Your task to perform on an android device: What's the weather going to be tomorrow? Image 0: 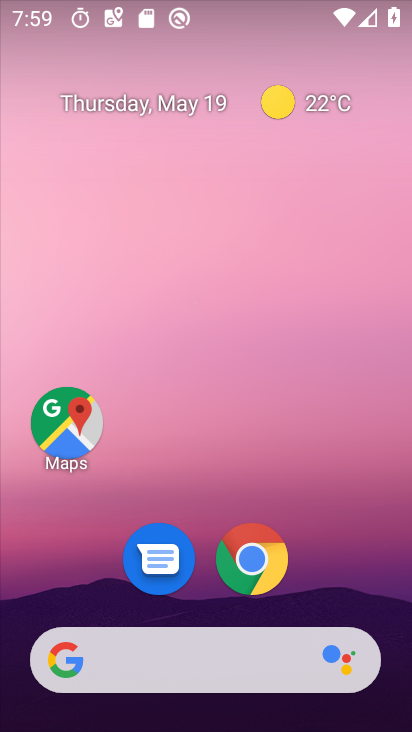
Step 0: click (183, 650)
Your task to perform on an android device: What's the weather going to be tomorrow? Image 1: 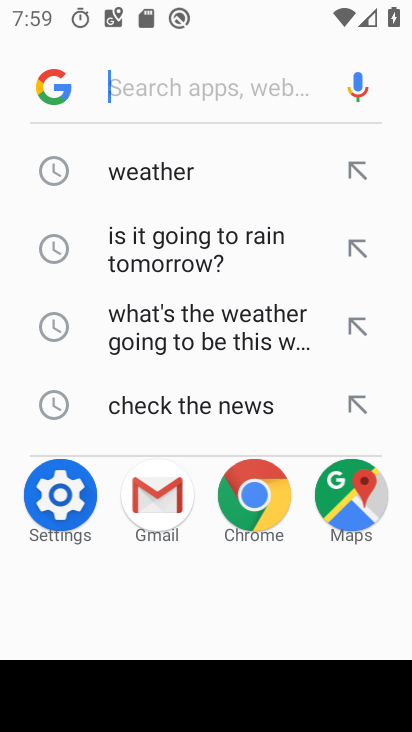
Step 1: type "what's the weather going to be tomorrow"
Your task to perform on an android device: What's the weather going to be tomorrow? Image 2: 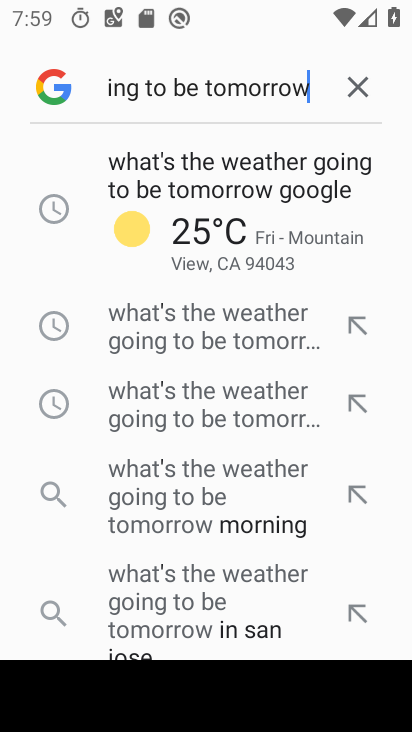
Step 2: click (225, 232)
Your task to perform on an android device: What's the weather going to be tomorrow? Image 3: 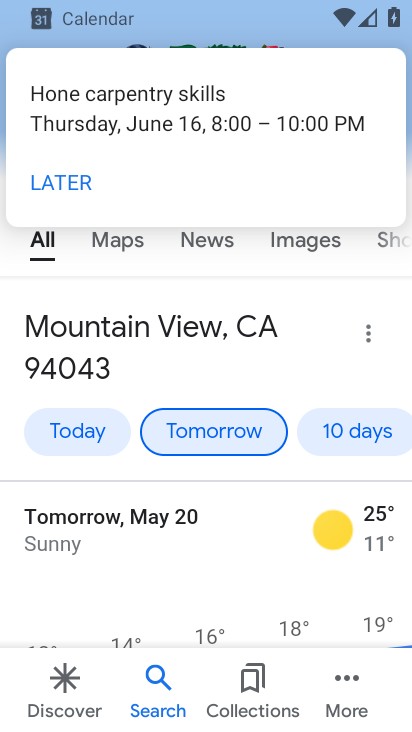
Step 3: task complete